Your task to perform on an android device: check out phone information Image 0: 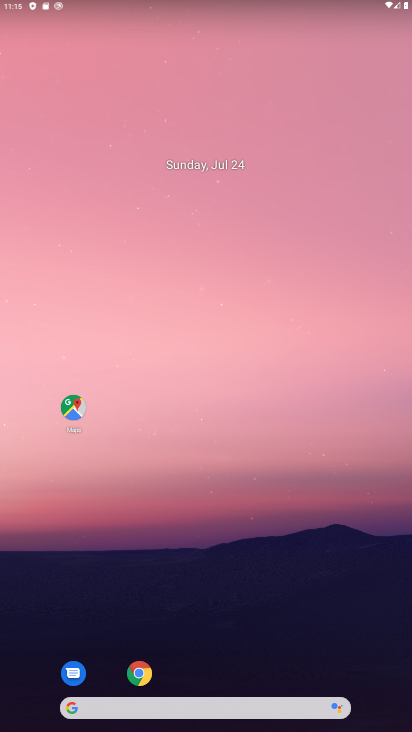
Step 0: drag from (197, 704) to (266, 180)
Your task to perform on an android device: check out phone information Image 1: 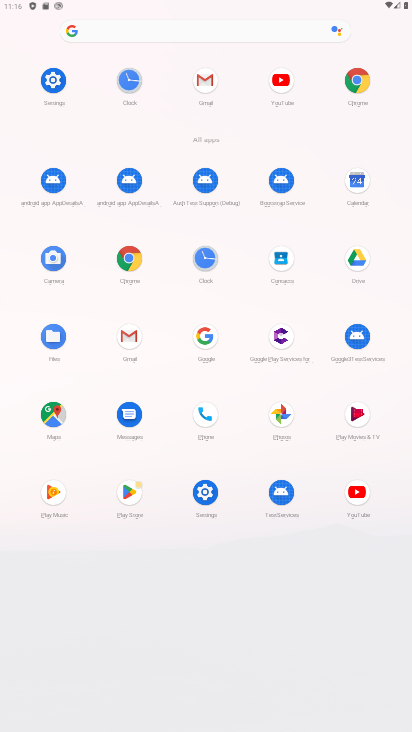
Step 1: click (53, 81)
Your task to perform on an android device: check out phone information Image 2: 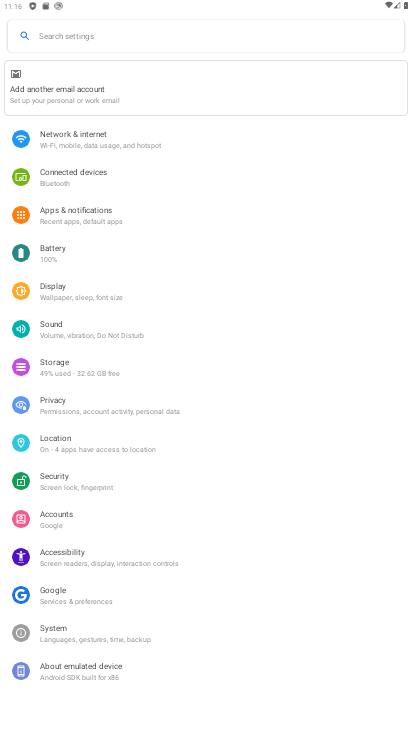
Step 2: drag from (94, 506) to (160, 396)
Your task to perform on an android device: check out phone information Image 3: 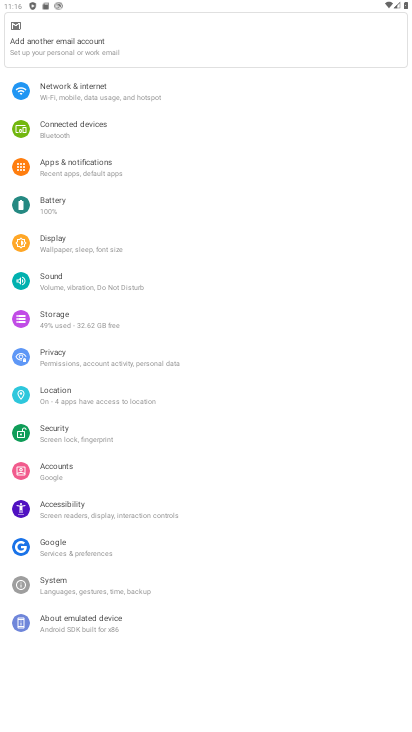
Step 3: click (106, 623)
Your task to perform on an android device: check out phone information Image 4: 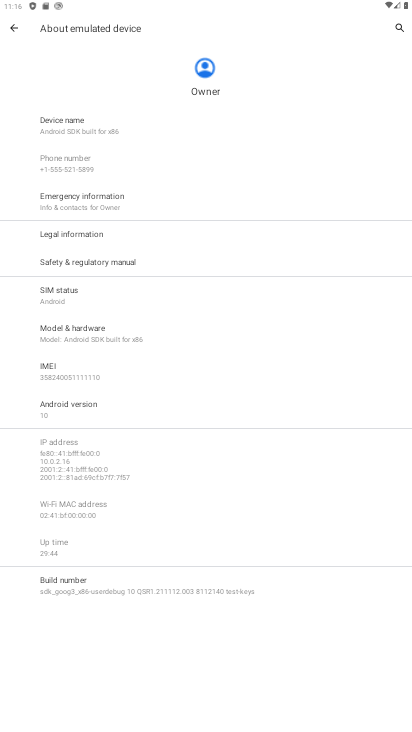
Step 4: task complete